Your task to perform on an android device: Go to settings Image 0: 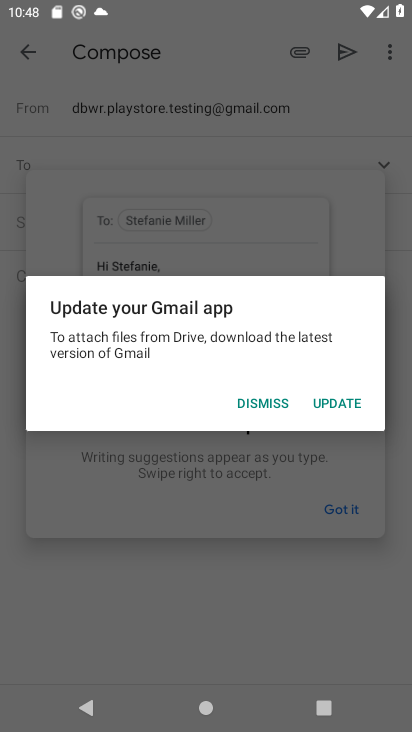
Step 0: press home button
Your task to perform on an android device: Go to settings Image 1: 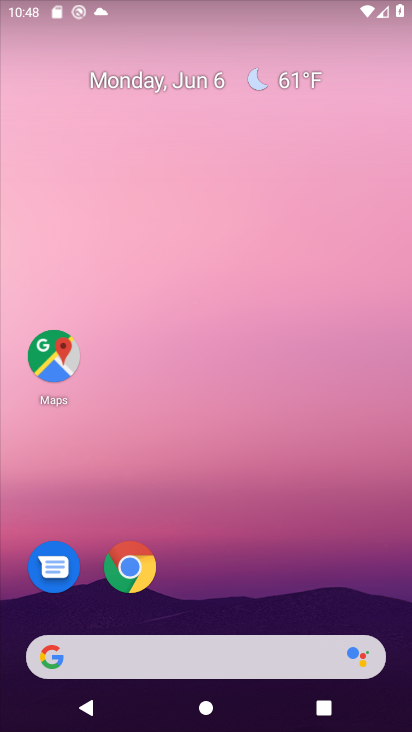
Step 1: drag from (251, 719) to (244, 182)
Your task to perform on an android device: Go to settings Image 2: 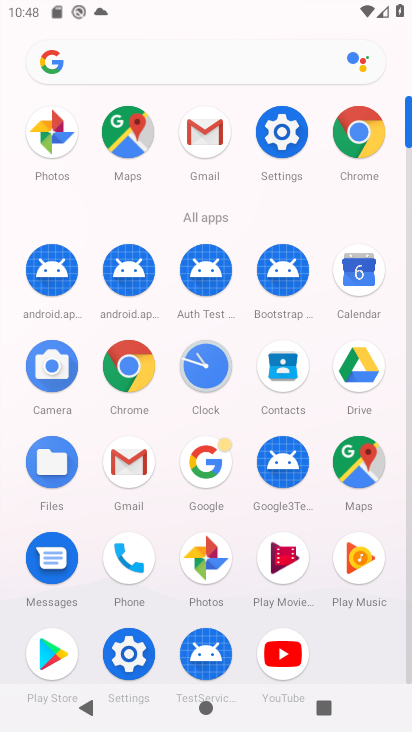
Step 2: click (276, 124)
Your task to perform on an android device: Go to settings Image 3: 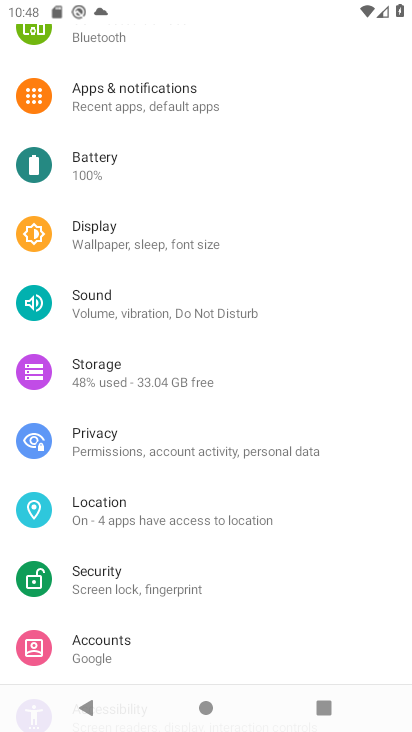
Step 3: task complete